Your task to perform on an android device: Go to Wikipedia Image 0: 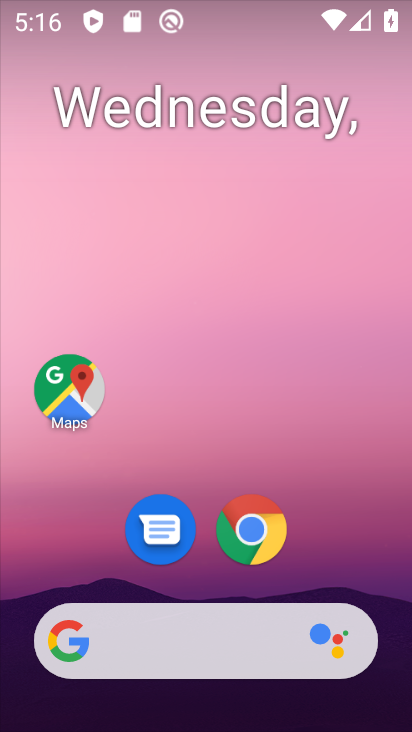
Step 0: drag from (345, 509) to (258, 31)
Your task to perform on an android device: Go to Wikipedia Image 1: 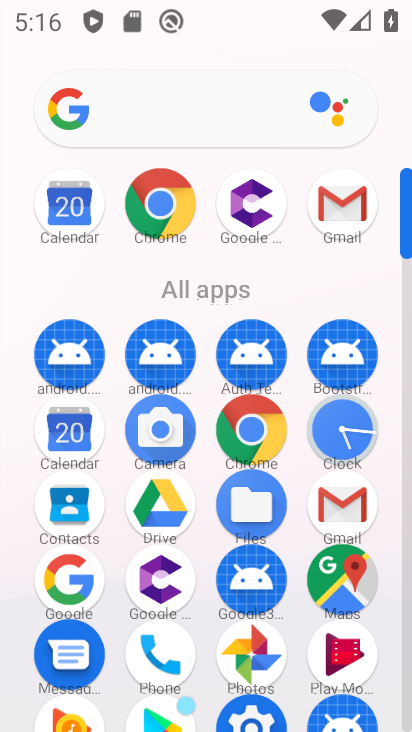
Step 1: drag from (17, 527) to (15, 261)
Your task to perform on an android device: Go to Wikipedia Image 2: 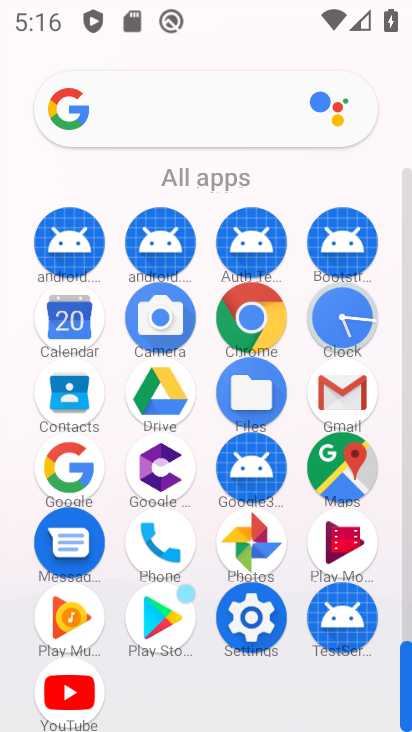
Step 2: click (250, 311)
Your task to perform on an android device: Go to Wikipedia Image 3: 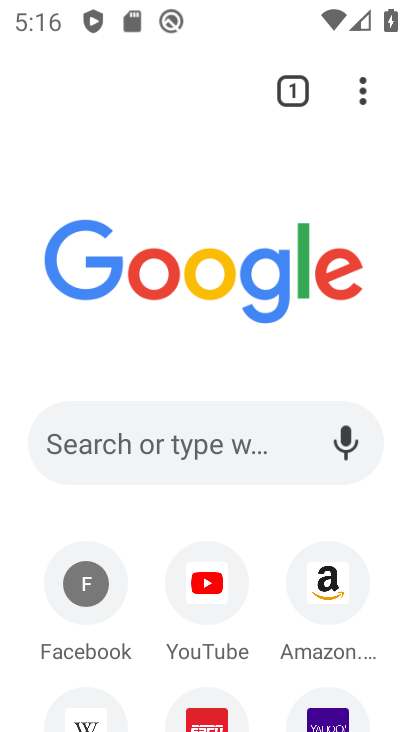
Step 3: click (81, 715)
Your task to perform on an android device: Go to Wikipedia Image 4: 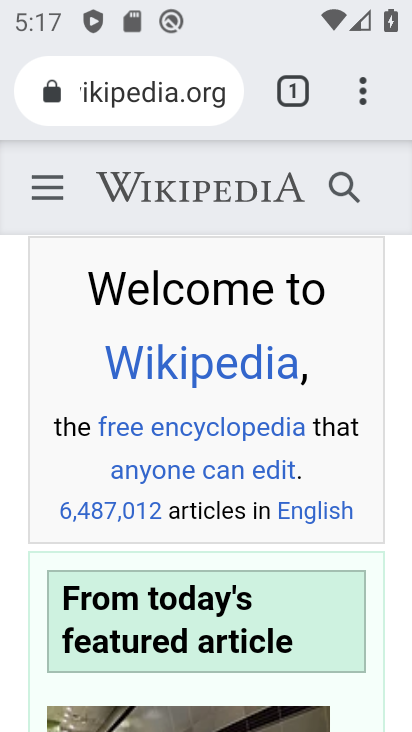
Step 4: task complete